Your task to perform on an android device: set an alarm Image 0: 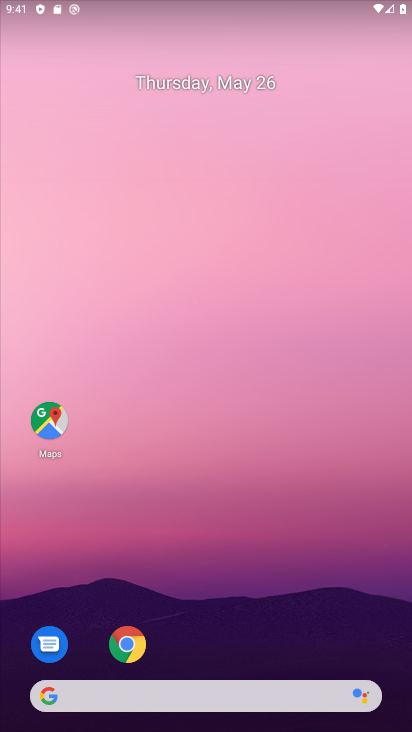
Step 0: drag from (202, 653) to (171, 264)
Your task to perform on an android device: set an alarm Image 1: 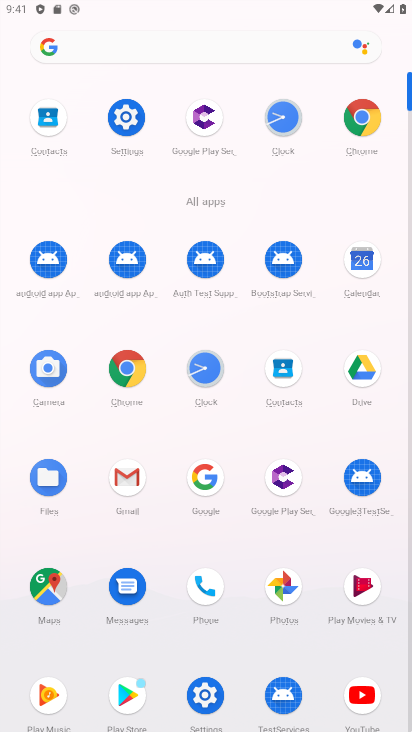
Step 1: click (214, 375)
Your task to perform on an android device: set an alarm Image 2: 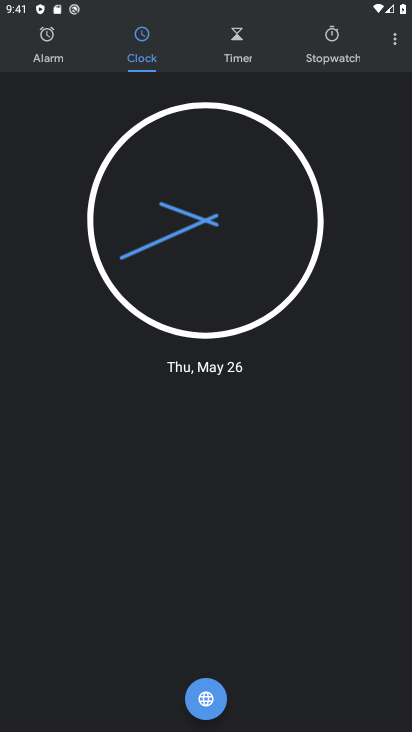
Step 2: click (47, 46)
Your task to perform on an android device: set an alarm Image 3: 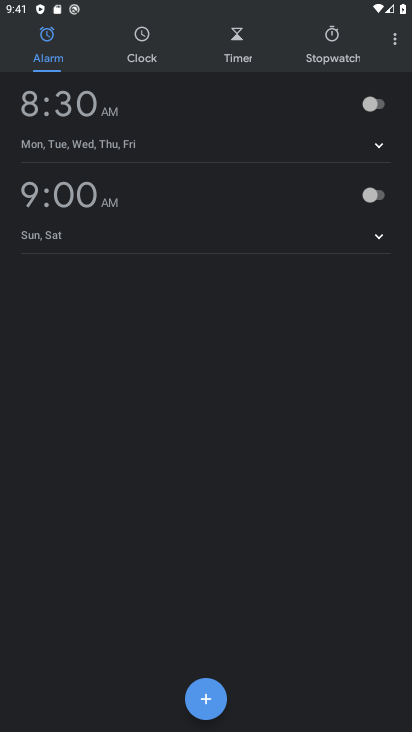
Step 3: click (378, 107)
Your task to perform on an android device: set an alarm Image 4: 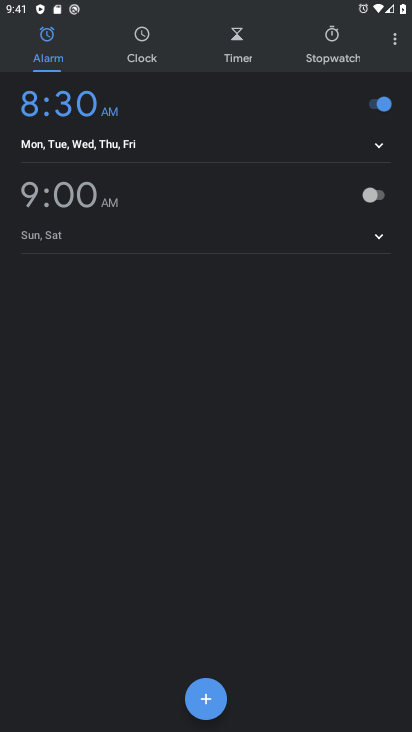
Step 4: task complete